Your task to perform on an android device: add a label to a message in the gmail app Image 0: 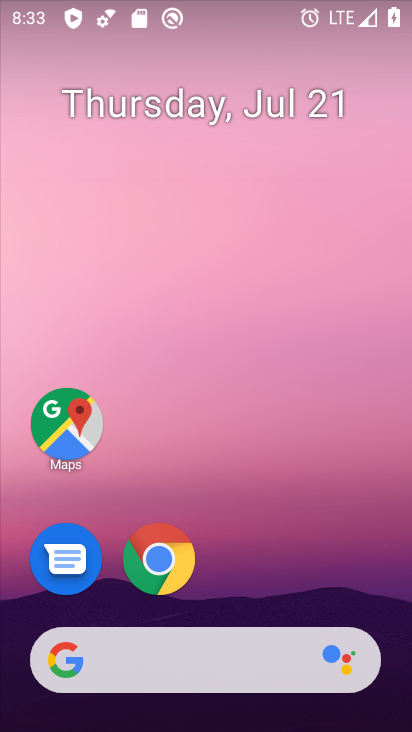
Step 0: drag from (380, 572) to (349, 139)
Your task to perform on an android device: add a label to a message in the gmail app Image 1: 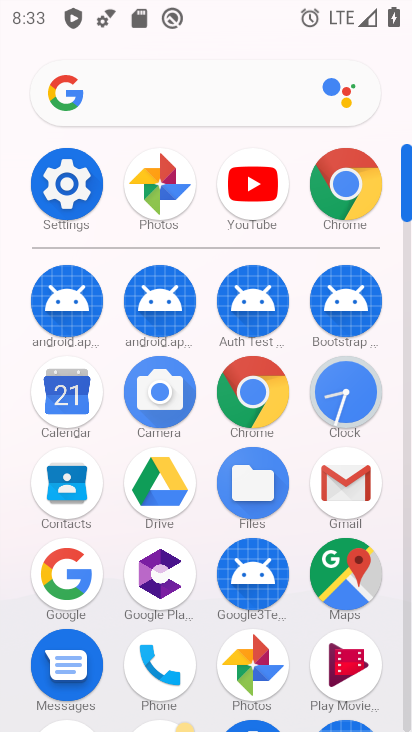
Step 1: click (354, 471)
Your task to perform on an android device: add a label to a message in the gmail app Image 2: 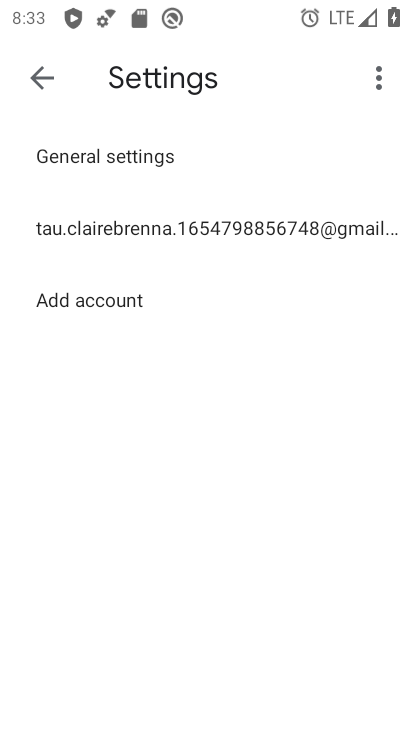
Step 2: press back button
Your task to perform on an android device: add a label to a message in the gmail app Image 3: 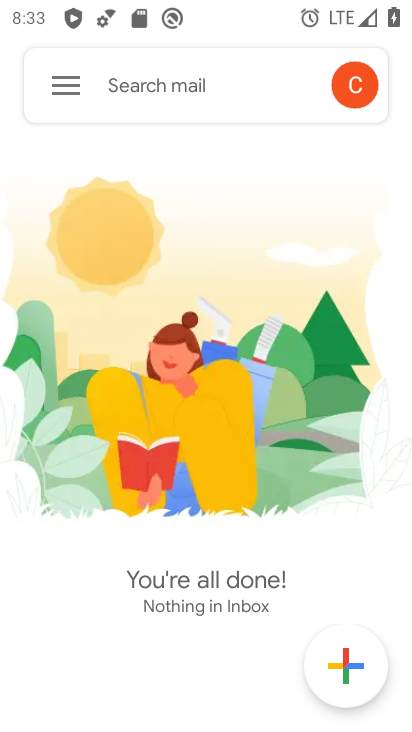
Step 3: click (67, 84)
Your task to perform on an android device: add a label to a message in the gmail app Image 4: 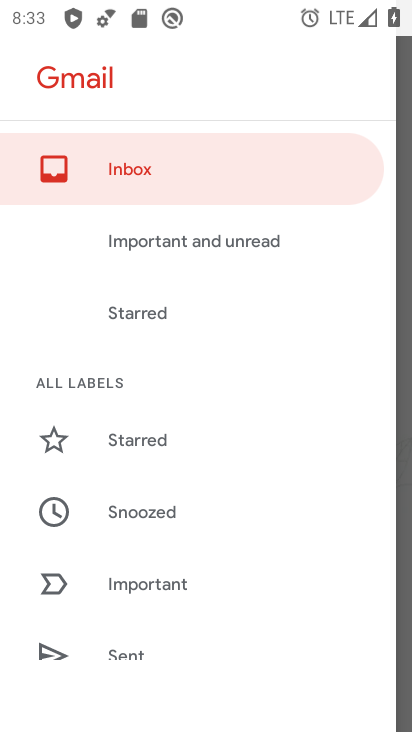
Step 4: drag from (304, 484) to (316, 414)
Your task to perform on an android device: add a label to a message in the gmail app Image 5: 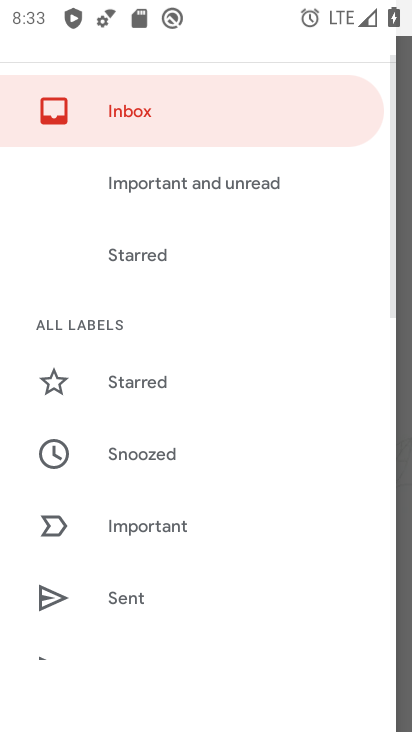
Step 5: drag from (326, 512) to (316, 408)
Your task to perform on an android device: add a label to a message in the gmail app Image 6: 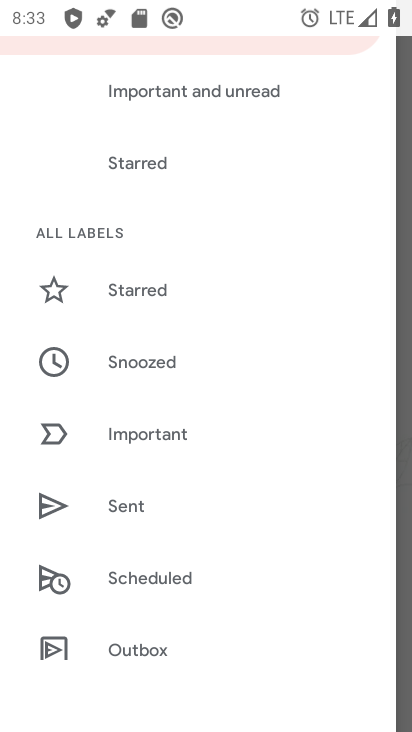
Step 6: drag from (303, 510) to (313, 397)
Your task to perform on an android device: add a label to a message in the gmail app Image 7: 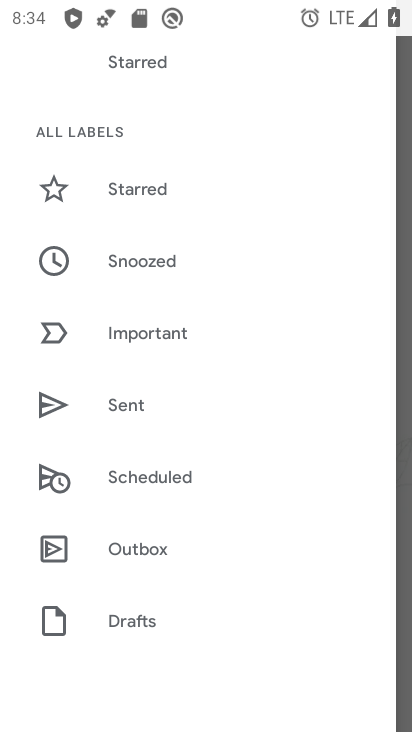
Step 7: drag from (297, 509) to (288, 378)
Your task to perform on an android device: add a label to a message in the gmail app Image 8: 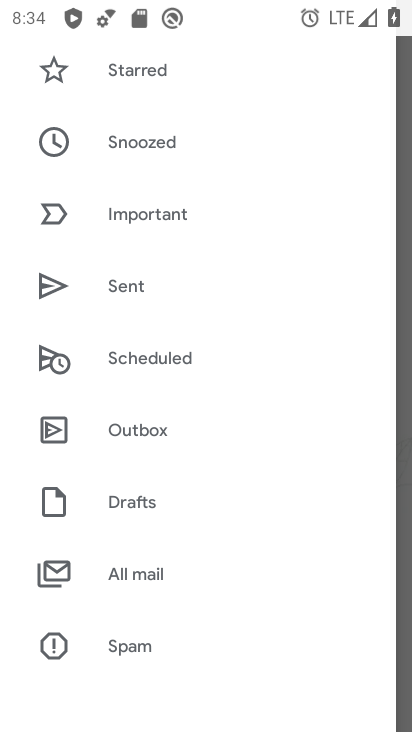
Step 8: click (237, 580)
Your task to perform on an android device: add a label to a message in the gmail app Image 9: 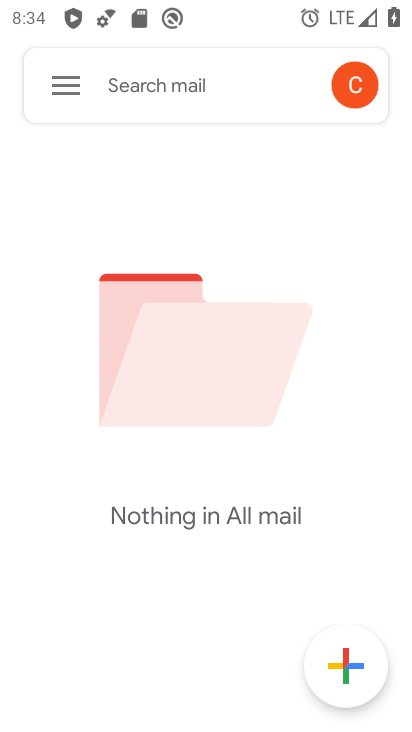
Step 9: task complete